Your task to perform on an android device: turn on data saver in the chrome app Image 0: 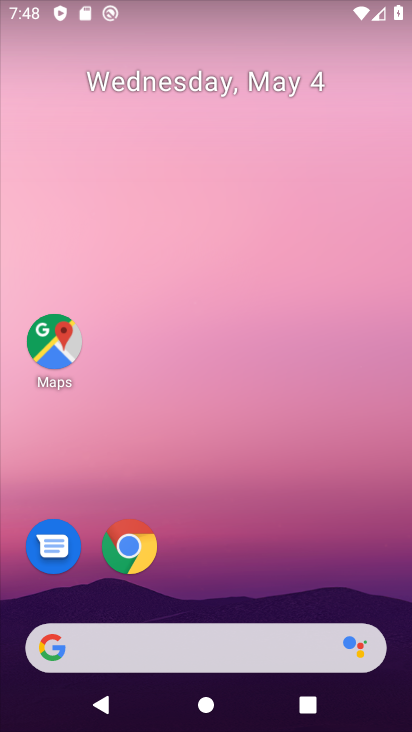
Step 0: click (117, 550)
Your task to perform on an android device: turn on data saver in the chrome app Image 1: 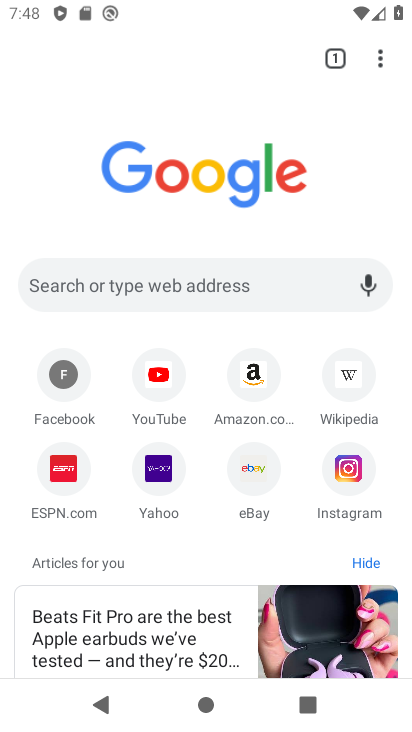
Step 1: click (381, 59)
Your task to perform on an android device: turn on data saver in the chrome app Image 2: 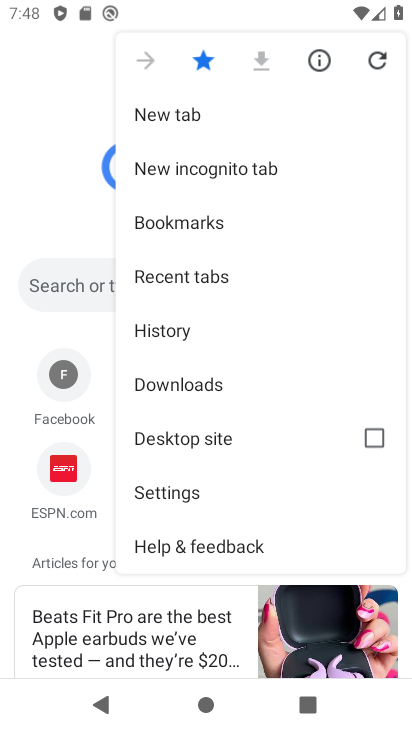
Step 2: click (202, 491)
Your task to perform on an android device: turn on data saver in the chrome app Image 3: 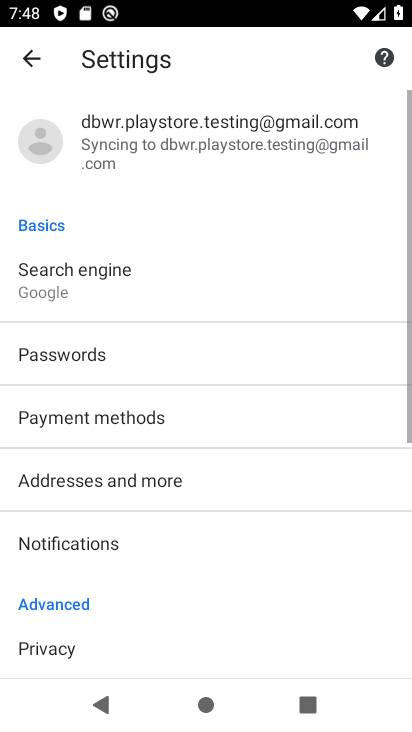
Step 3: drag from (206, 573) to (221, 4)
Your task to perform on an android device: turn on data saver in the chrome app Image 4: 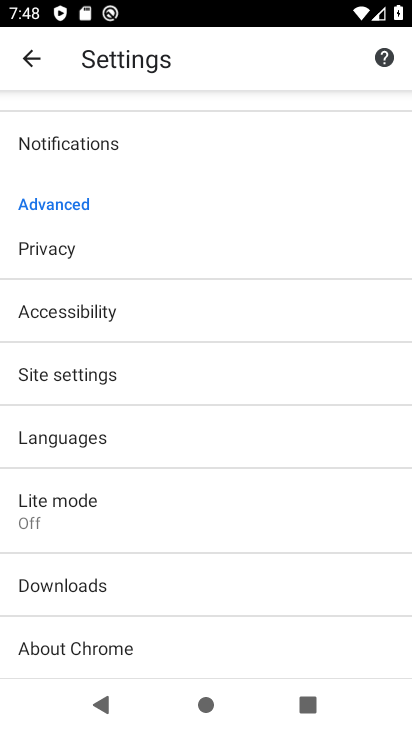
Step 4: drag from (182, 625) to (190, 139)
Your task to perform on an android device: turn on data saver in the chrome app Image 5: 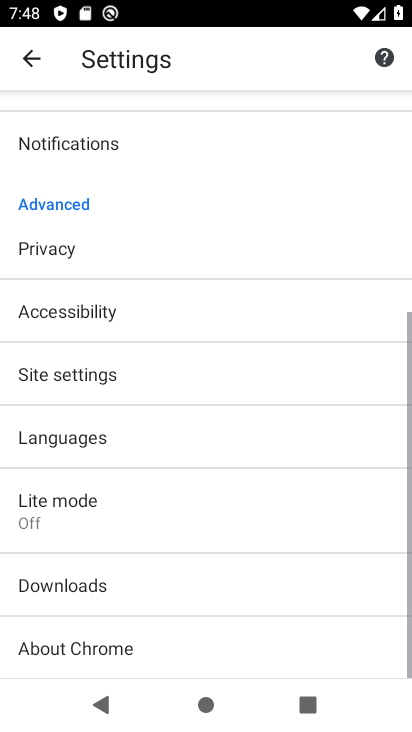
Step 5: click (115, 495)
Your task to perform on an android device: turn on data saver in the chrome app Image 6: 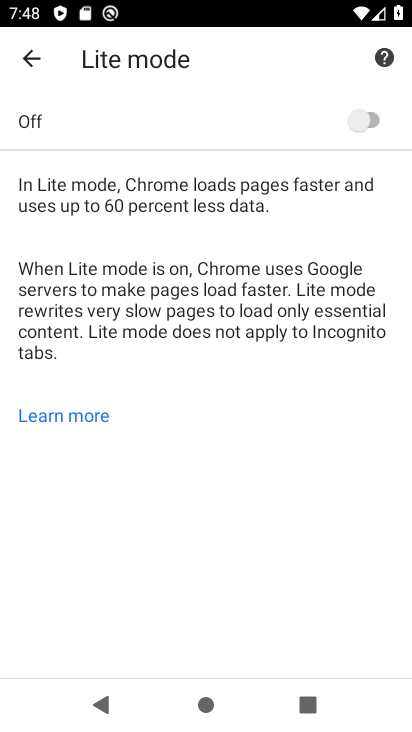
Step 6: click (361, 114)
Your task to perform on an android device: turn on data saver in the chrome app Image 7: 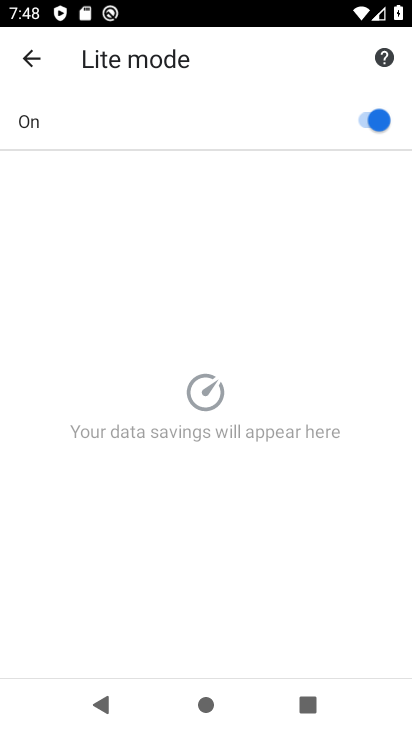
Step 7: task complete